Your task to perform on an android device: change the clock display to show seconds Image 0: 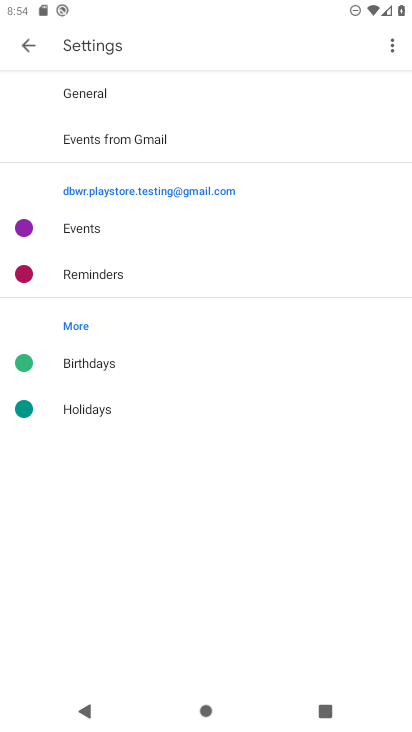
Step 0: press home button
Your task to perform on an android device: change the clock display to show seconds Image 1: 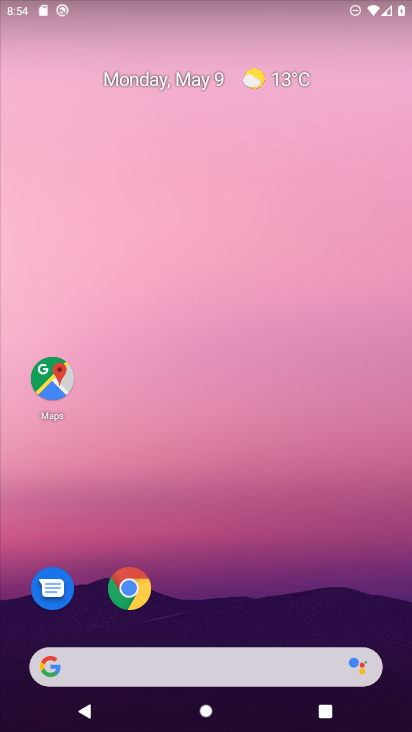
Step 1: drag from (284, 544) to (249, 27)
Your task to perform on an android device: change the clock display to show seconds Image 2: 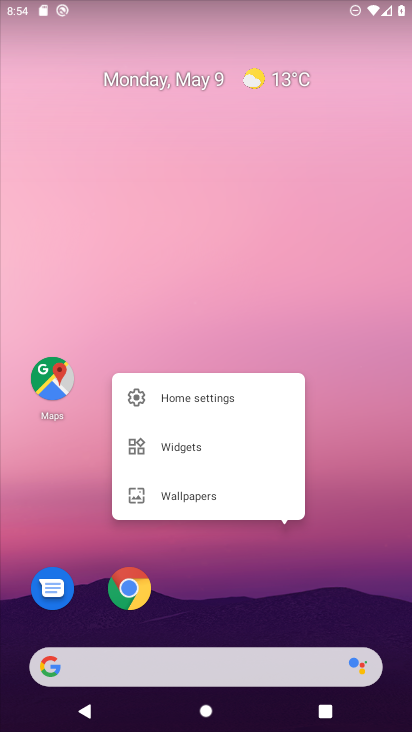
Step 2: click (290, 558)
Your task to perform on an android device: change the clock display to show seconds Image 3: 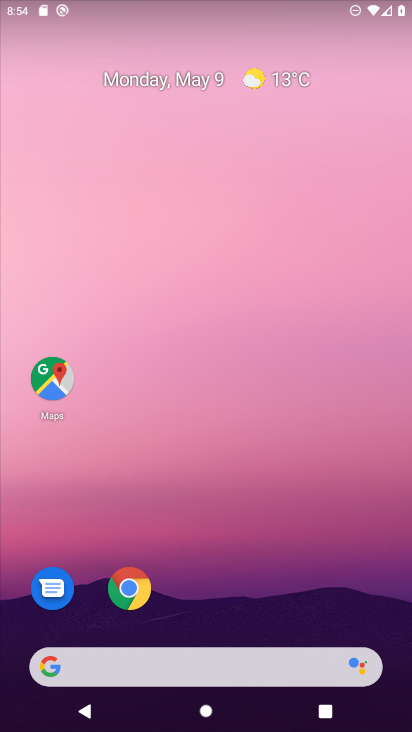
Step 3: drag from (274, 585) to (275, 69)
Your task to perform on an android device: change the clock display to show seconds Image 4: 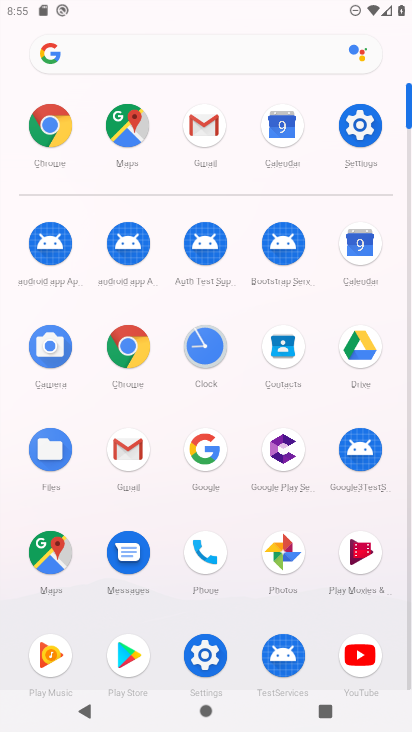
Step 4: click (211, 348)
Your task to perform on an android device: change the clock display to show seconds Image 5: 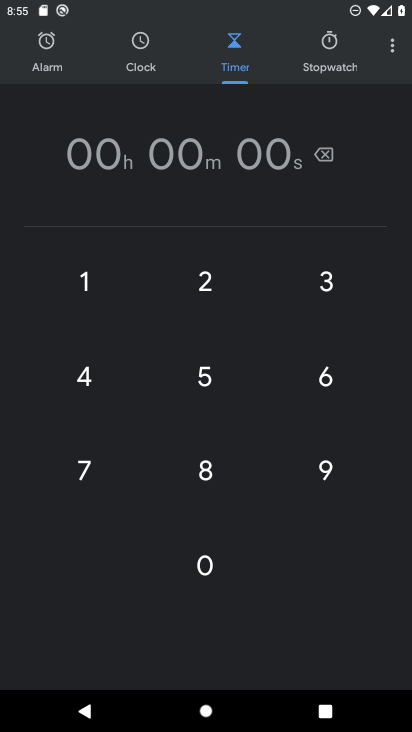
Step 5: click (379, 56)
Your task to perform on an android device: change the clock display to show seconds Image 6: 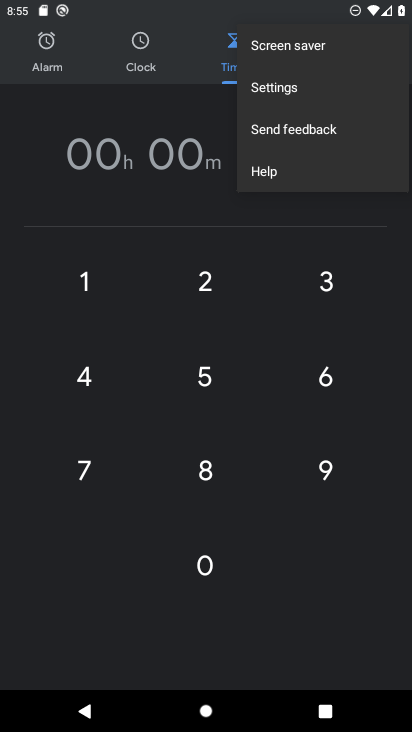
Step 6: click (338, 96)
Your task to perform on an android device: change the clock display to show seconds Image 7: 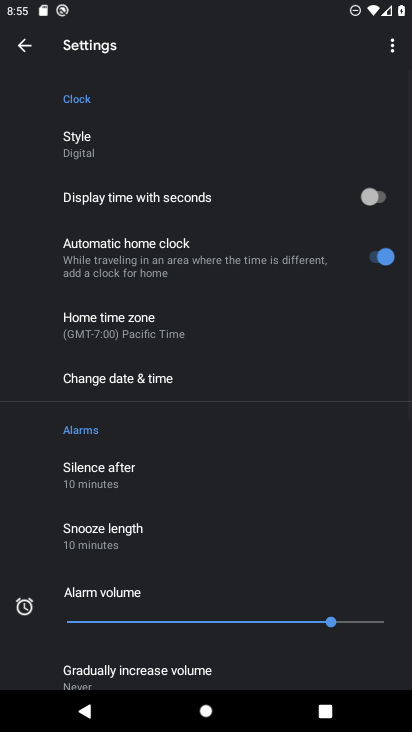
Step 7: click (204, 149)
Your task to perform on an android device: change the clock display to show seconds Image 8: 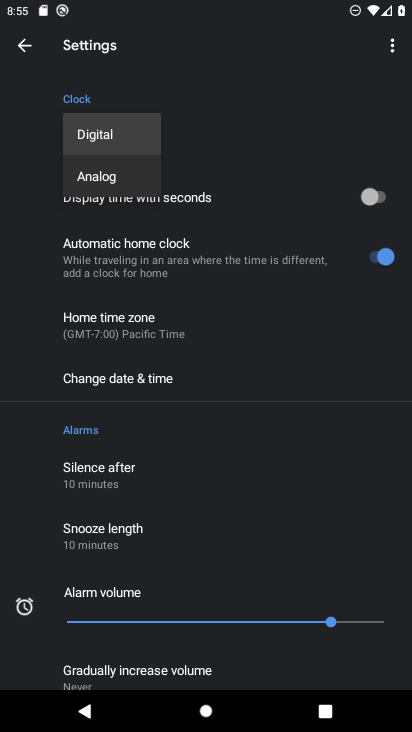
Step 8: click (141, 166)
Your task to perform on an android device: change the clock display to show seconds Image 9: 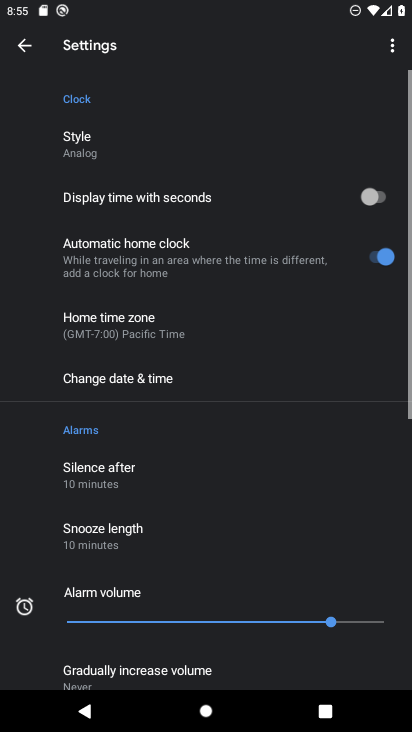
Step 9: task complete